Your task to perform on an android device: turn on translation in the chrome app Image 0: 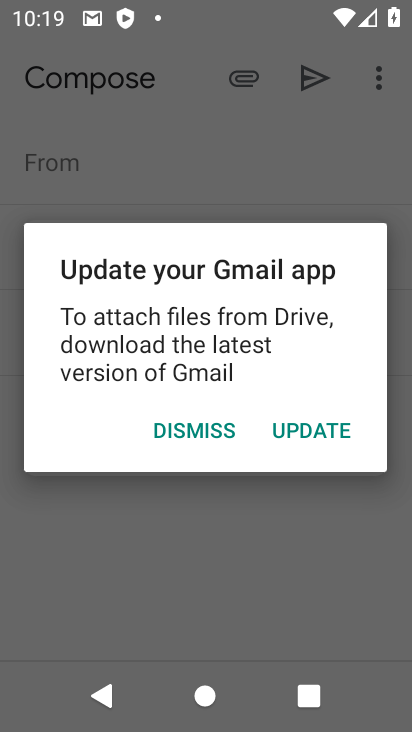
Step 0: press back button
Your task to perform on an android device: turn on translation in the chrome app Image 1: 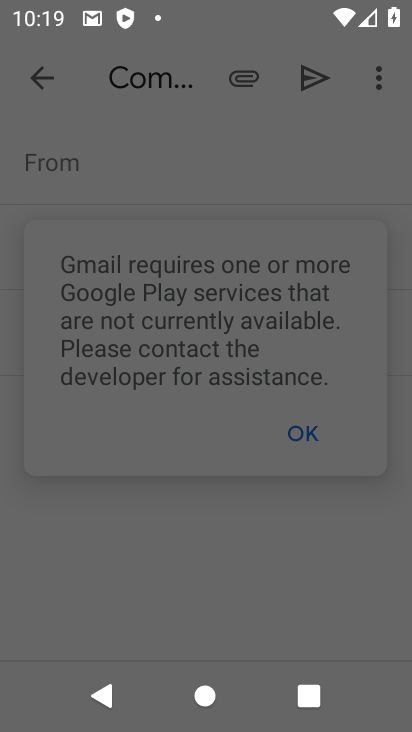
Step 1: click (158, 419)
Your task to perform on an android device: turn on translation in the chrome app Image 2: 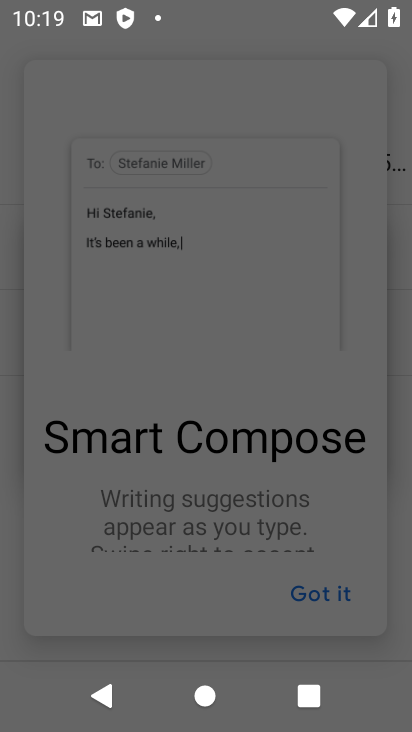
Step 2: press back button
Your task to perform on an android device: turn on translation in the chrome app Image 3: 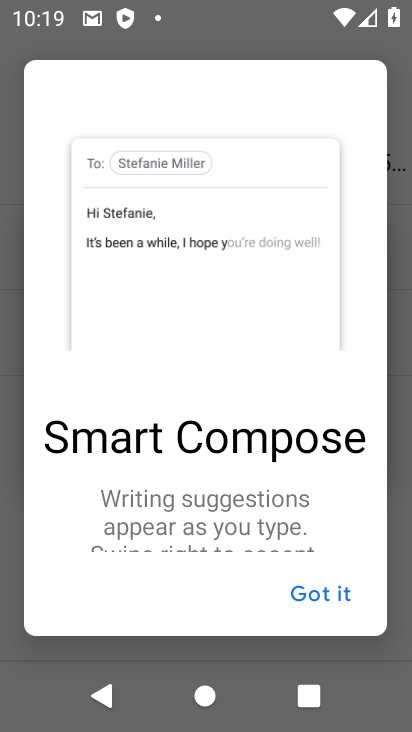
Step 3: press back button
Your task to perform on an android device: turn on translation in the chrome app Image 4: 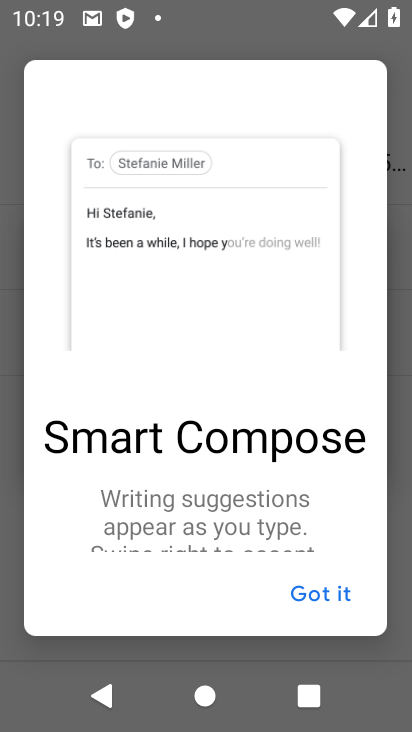
Step 4: click (337, 599)
Your task to perform on an android device: turn on translation in the chrome app Image 5: 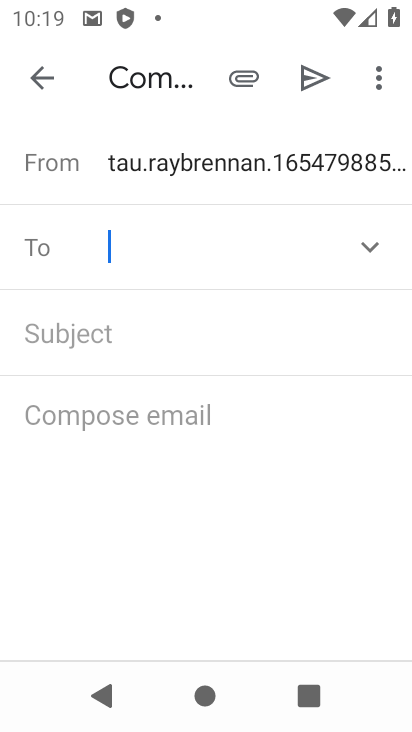
Step 5: press back button
Your task to perform on an android device: turn on translation in the chrome app Image 6: 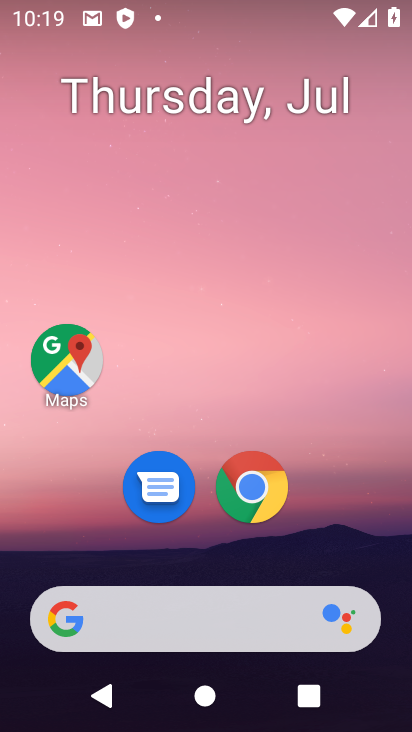
Step 6: click (258, 487)
Your task to perform on an android device: turn on translation in the chrome app Image 7: 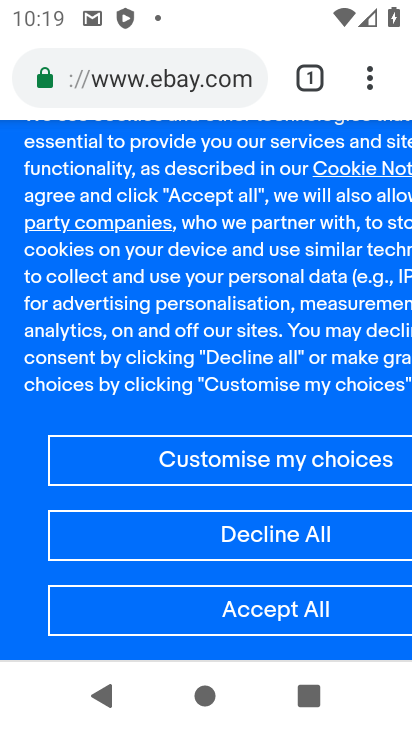
Step 7: drag from (370, 65) to (104, 545)
Your task to perform on an android device: turn on translation in the chrome app Image 8: 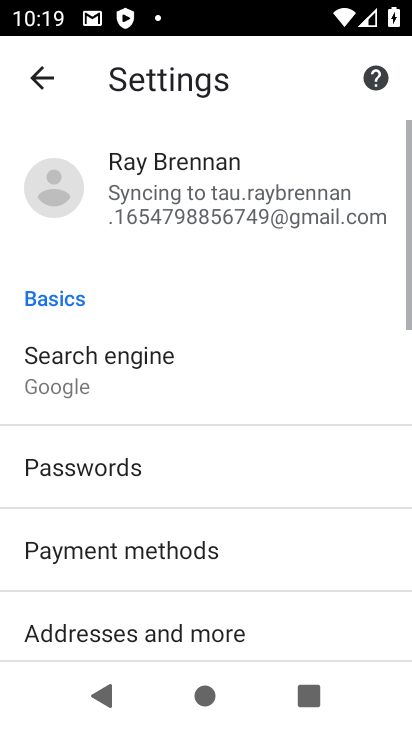
Step 8: drag from (114, 605) to (231, 239)
Your task to perform on an android device: turn on translation in the chrome app Image 9: 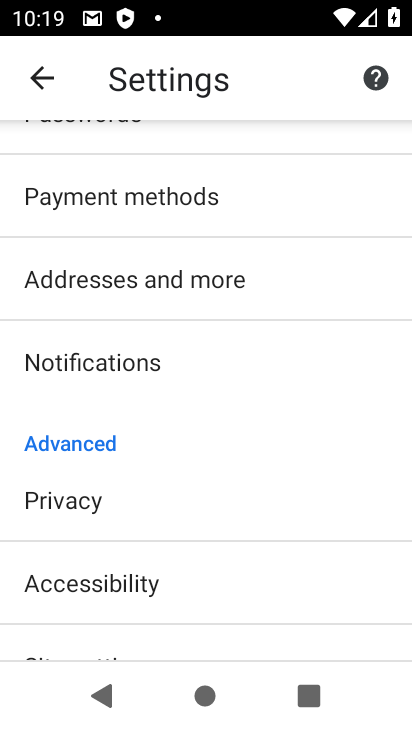
Step 9: drag from (142, 610) to (261, 185)
Your task to perform on an android device: turn on translation in the chrome app Image 10: 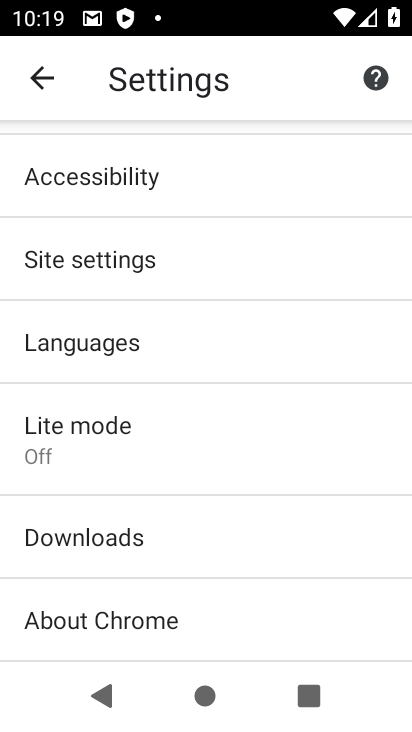
Step 10: click (79, 335)
Your task to perform on an android device: turn on translation in the chrome app Image 11: 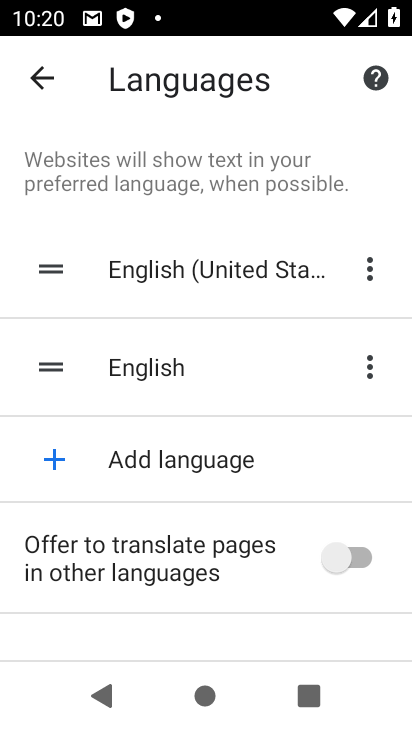
Step 11: click (362, 557)
Your task to perform on an android device: turn on translation in the chrome app Image 12: 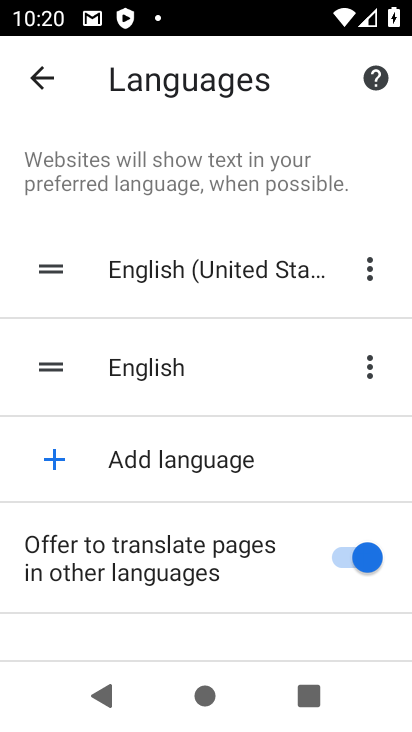
Step 12: task complete